Your task to perform on an android device: turn off airplane mode Image 0: 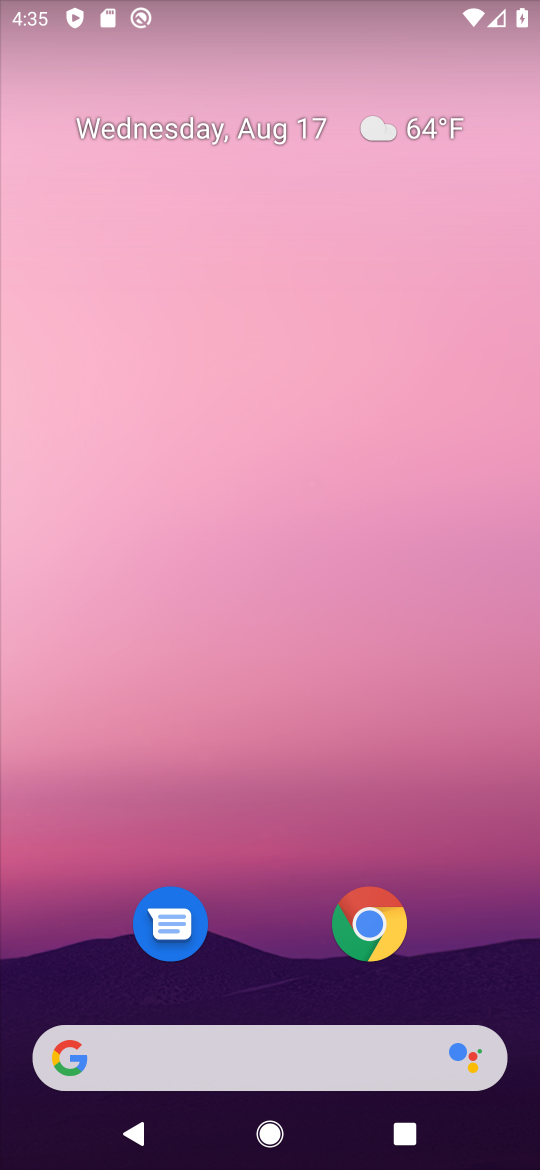
Step 0: drag from (285, 889) to (331, 52)
Your task to perform on an android device: turn off airplane mode Image 1: 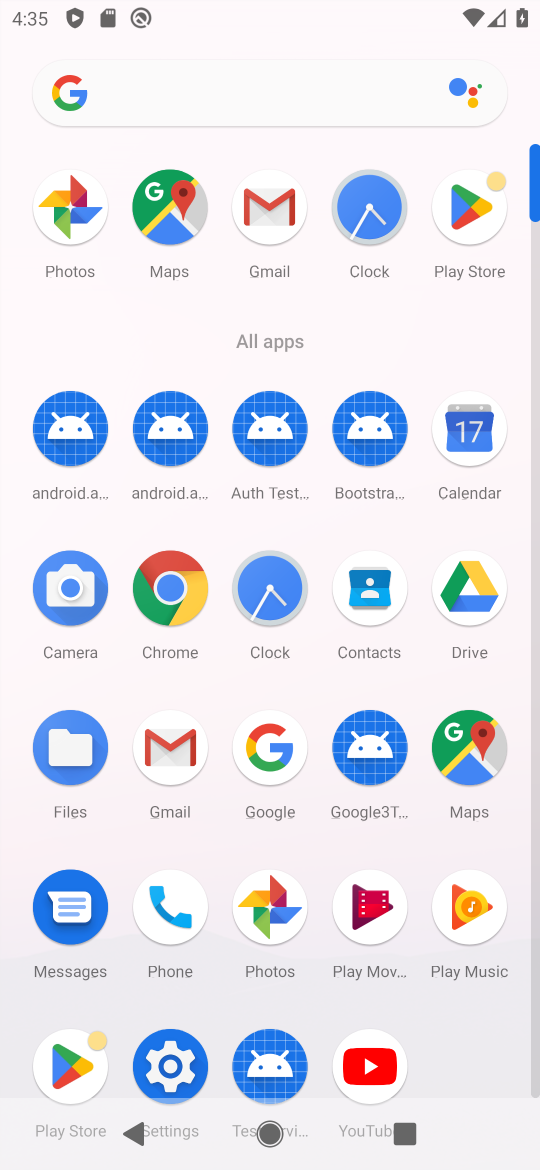
Step 1: click (169, 1062)
Your task to perform on an android device: turn off airplane mode Image 2: 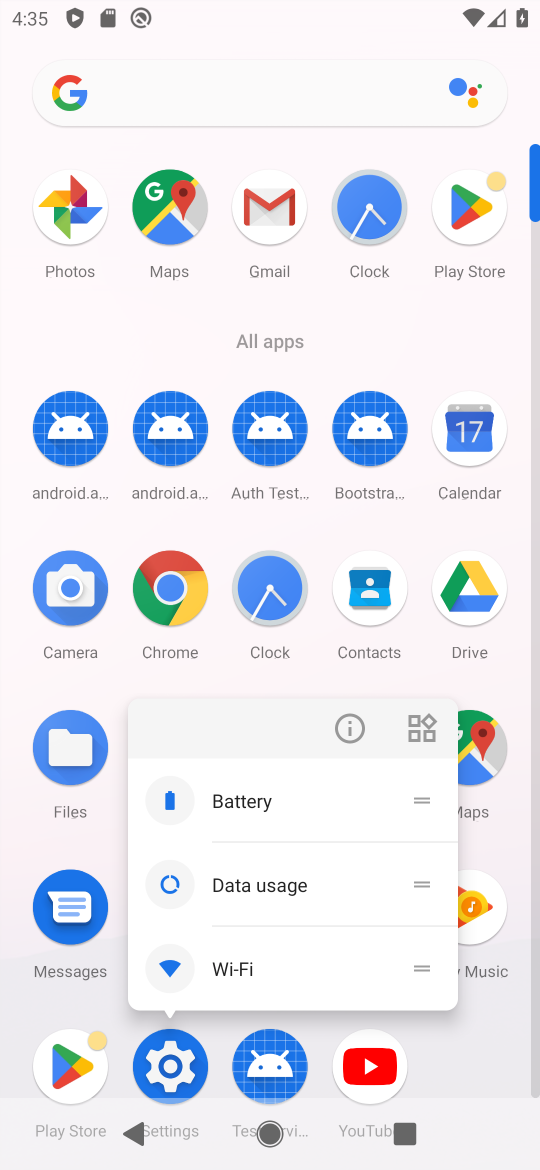
Step 2: click (160, 1080)
Your task to perform on an android device: turn off airplane mode Image 3: 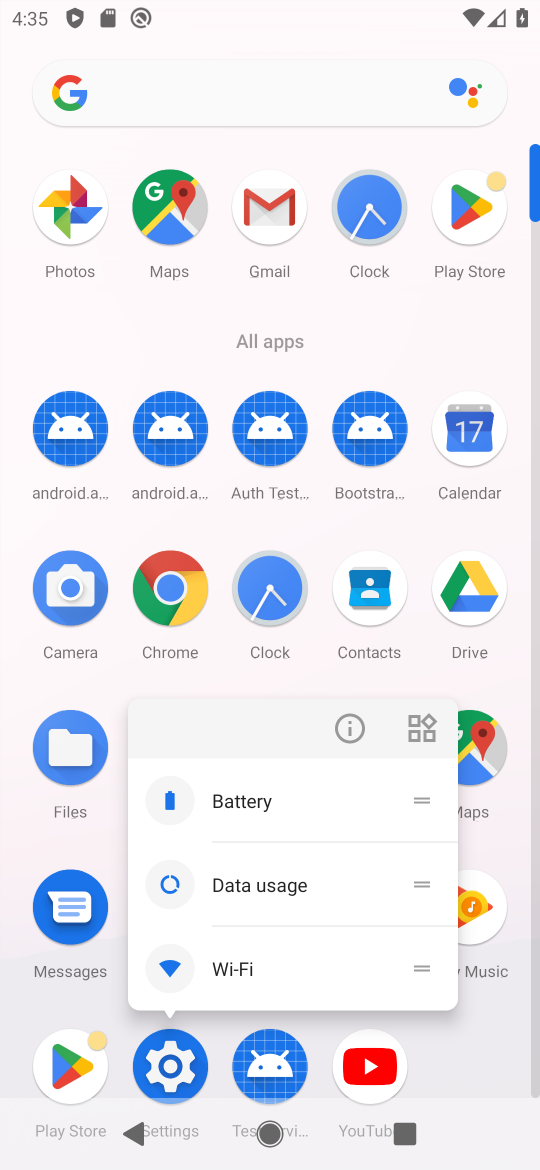
Step 3: click (174, 1062)
Your task to perform on an android device: turn off airplane mode Image 4: 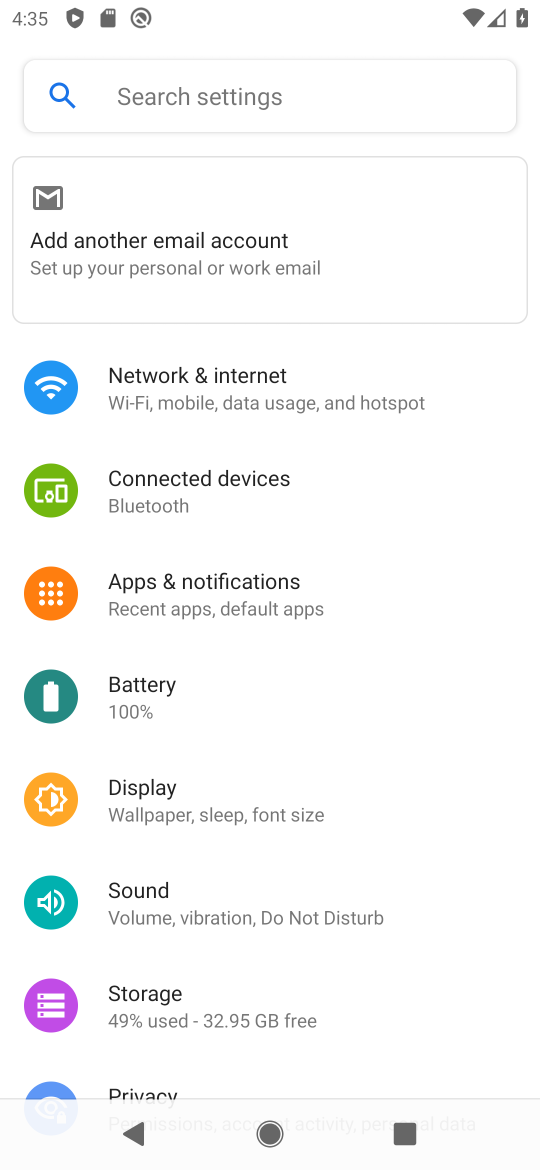
Step 4: click (213, 378)
Your task to perform on an android device: turn off airplane mode Image 5: 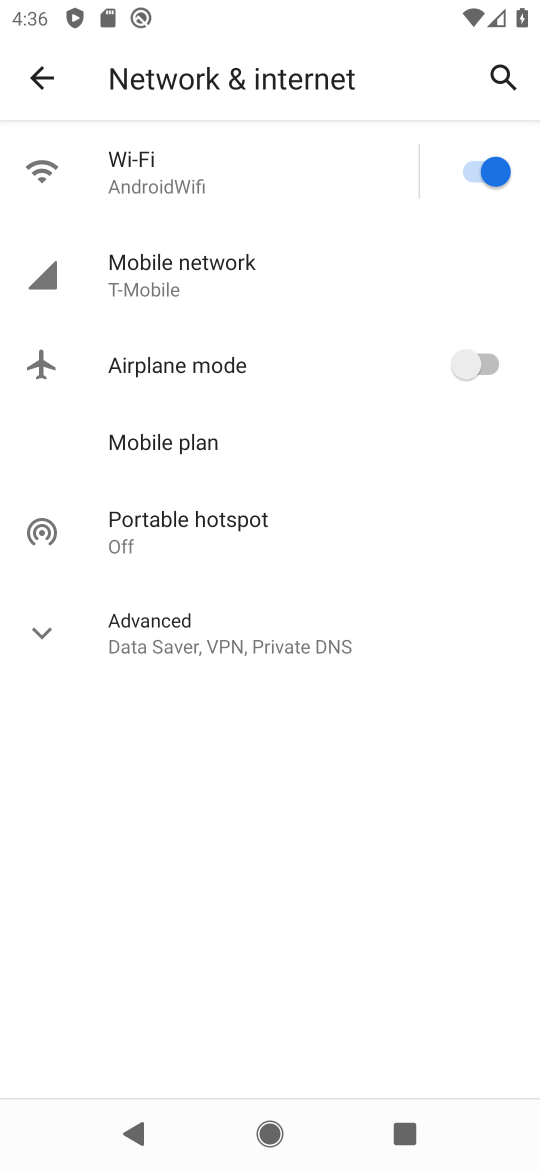
Step 5: task complete